Your task to perform on an android device: Go to ESPN.com Image 0: 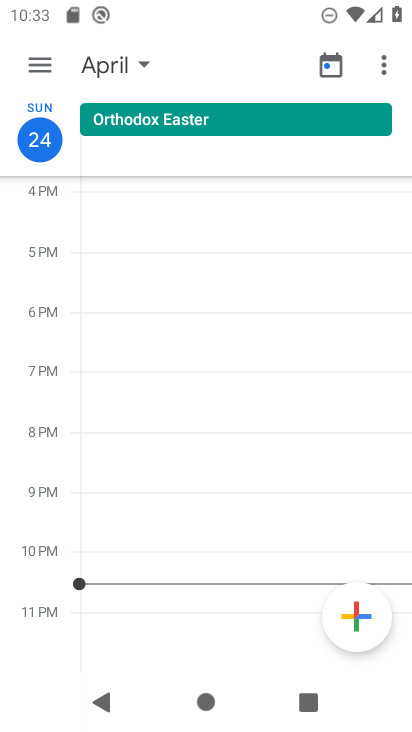
Step 0: press home button
Your task to perform on an android device: Go to ESPN.com Image 1: 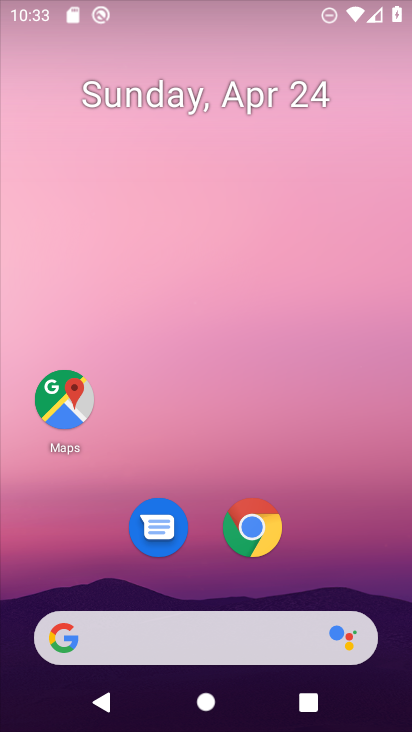
Step 1: drag from (391, 613) to (320, 53)
Your task to perform on an android device: Go to ESPN.com Image 2: 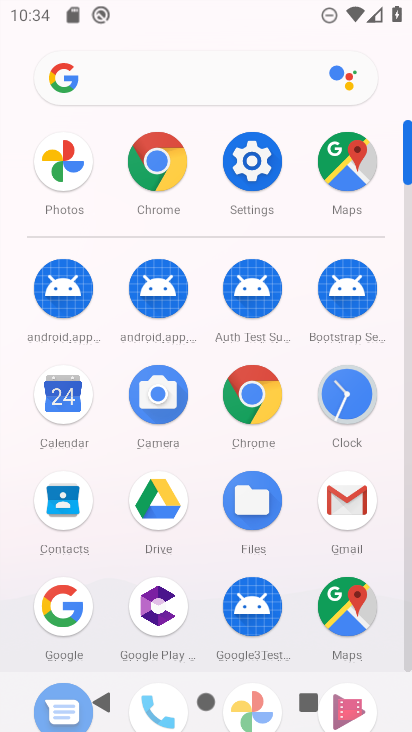
Step 2: click (245, 400)
Your task to perform on an android device: Go to ESPN.com Image 3: 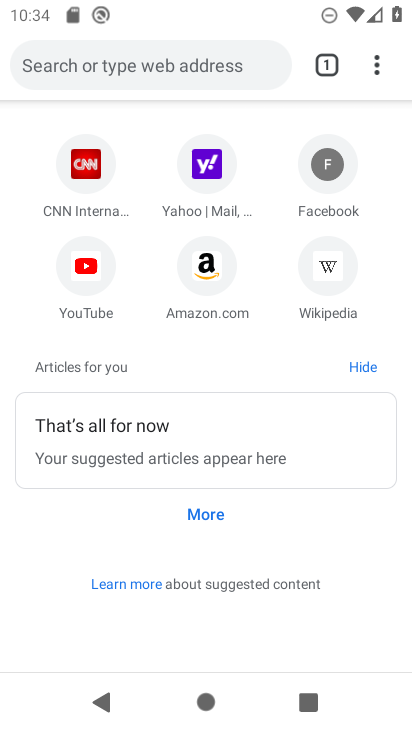
Step 3: click (179, 79)
Your task to perform on an android device: Go to ESPN.com Image 4: 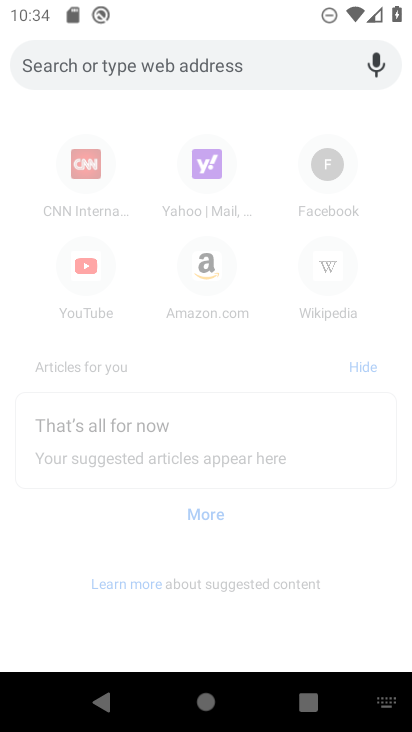
Step 4: type "espn.com"
Your task to perform on an android device: Go to ESPN.com Image 5: 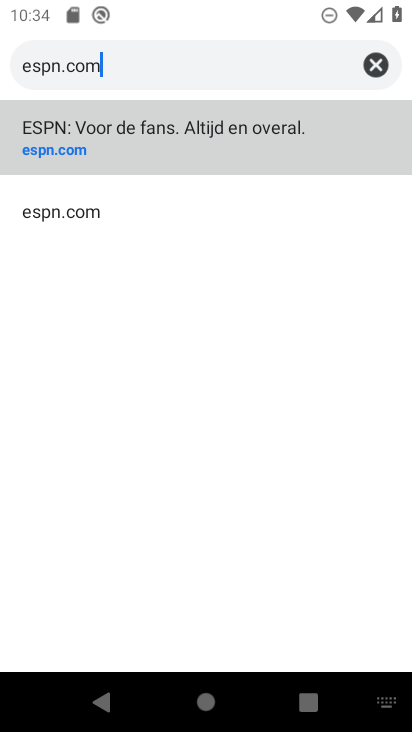
Step 5: click (225, 130)
Your task to perform on an android device: Go to ESPN.com Image 6: 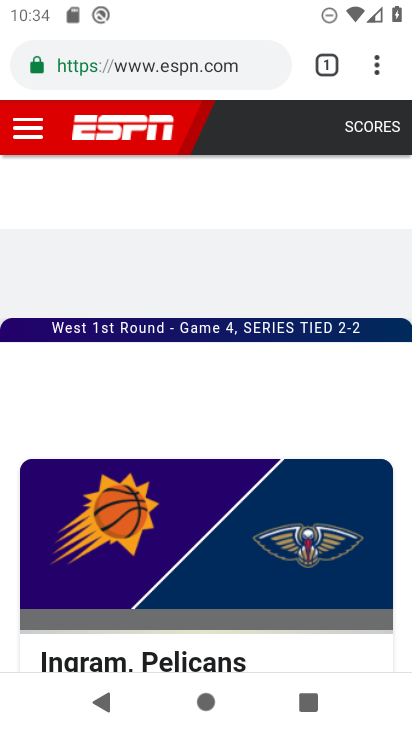
Step 6: task complete